Your task to perform on an android device: refresh tabs in the chrome app Image 0: 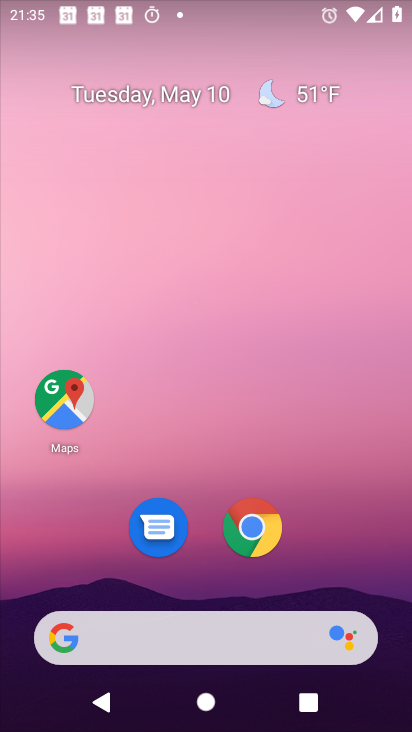
Step 0: click (245, 524)
Your task to perform on an android device: refresh tabs in the chrome app Image 1: 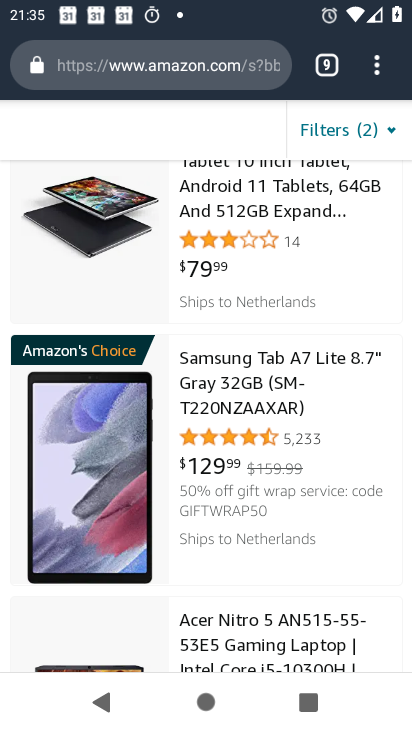
Step 1: click (377, 79)
Your task to perform on an android device: refresh tabs in the chrome app Image 2: 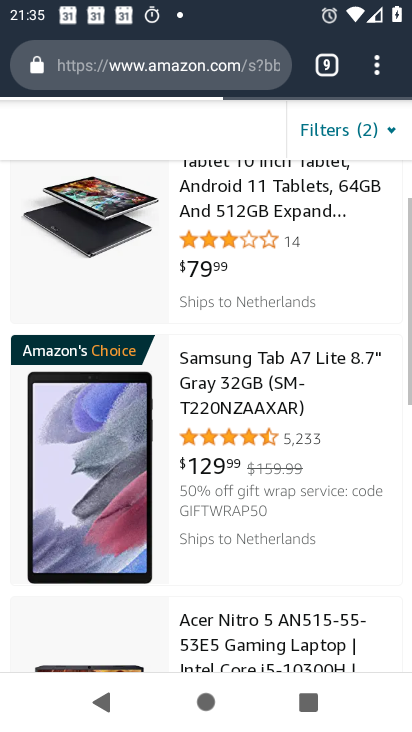
Step 2: click (378, 65)
Your task to perform on an android device: refresh tabs in the chrome app Image 3: 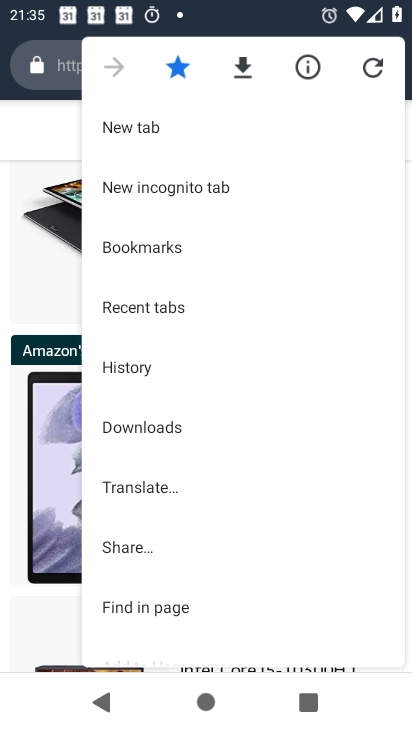
Step 3: drag from (326, 64) to (1, 159)
Your task to perform on an android device: refresh tabs in the chrome app Image 4: 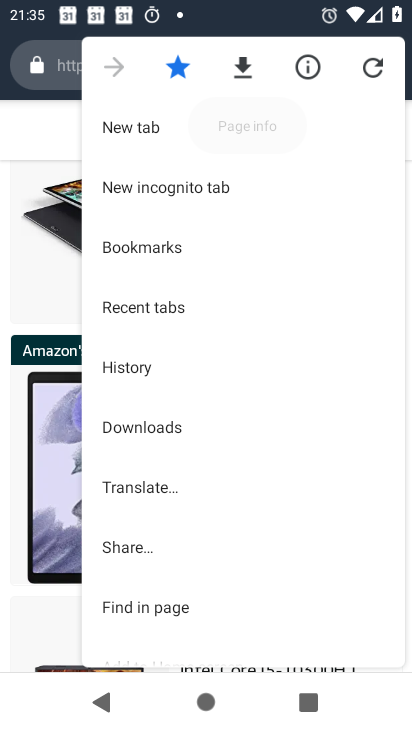
Step 4: drag from (191, 520) to (183, 639)
Your task to perform on an android device: refresh tabs in the chrome app Image 5: 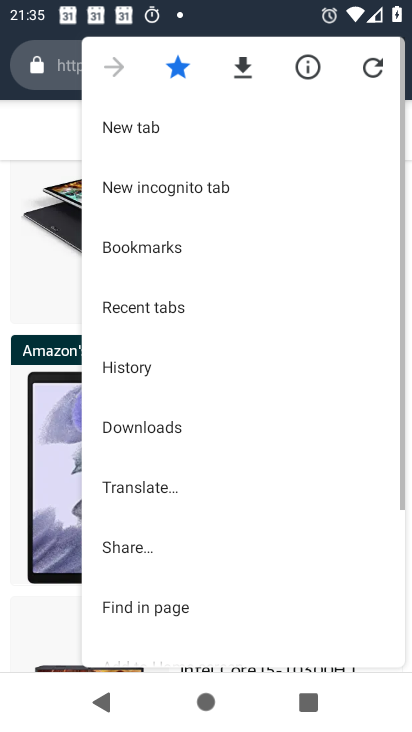
Step 5: click (360, 70)
Your task to perform on an android device: refresh tabs in the chrome app Image 6: 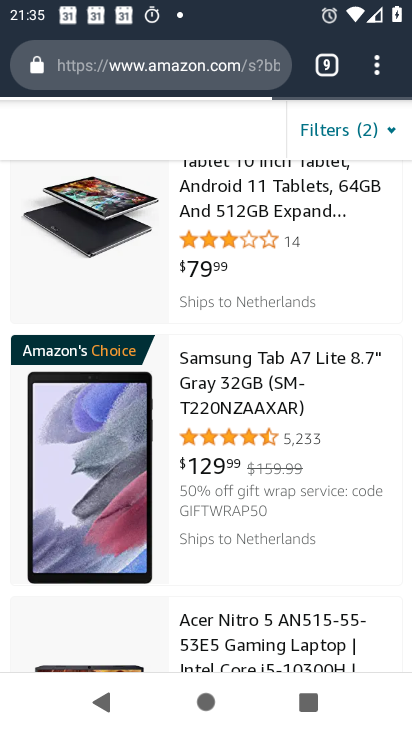
Step 6: task complete